Your task to perform on an android device: delete browsing data in the chrome app Image 0: 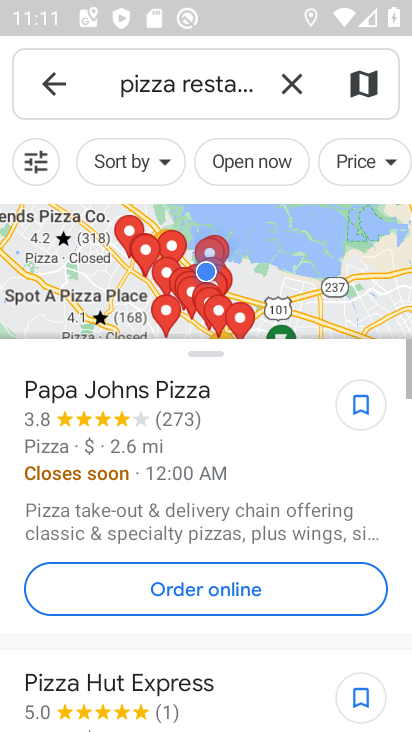
Step 0: press home button
Your task to perform on an android device: delete browsing data in the chrome app Image 1: 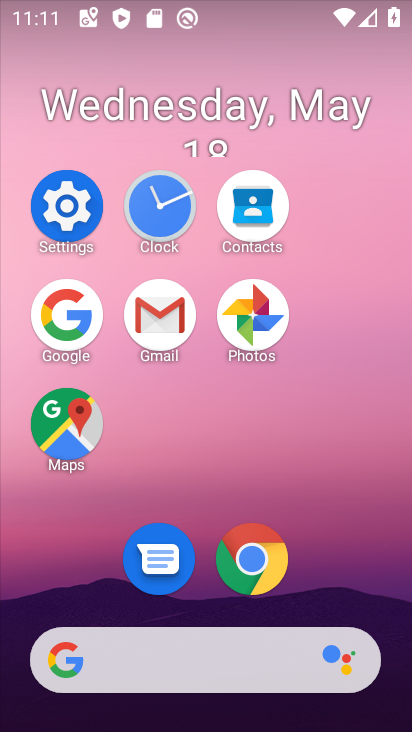
Step 1: click (272, 571)
Your task to perform on an android device: delete browsing data in the chrome app Image 2: 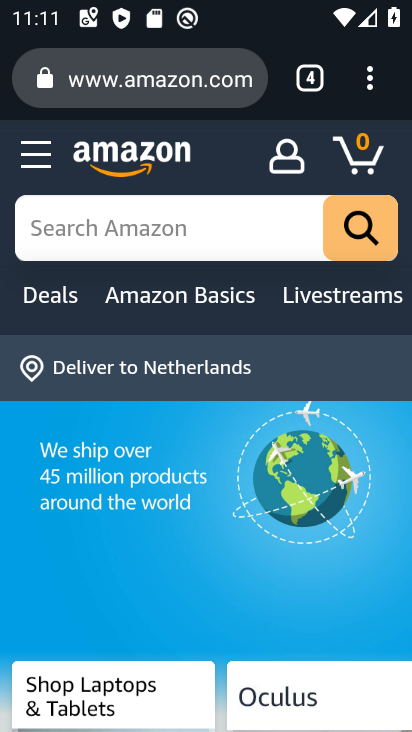
Step 2: click (372, 90)
Your task to perform on an android device: delete browsing data in the chrome app Image 3: 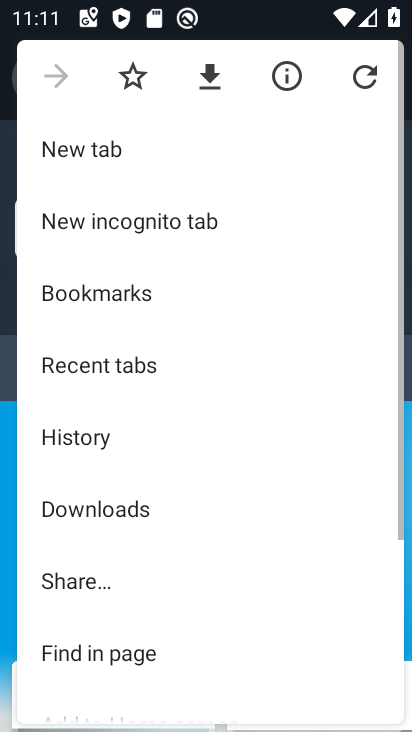
Step 3: drag from (242, 631) to (316, 191)
Your task to perform on an android device: delete browsing data in the chrome app Image 4: 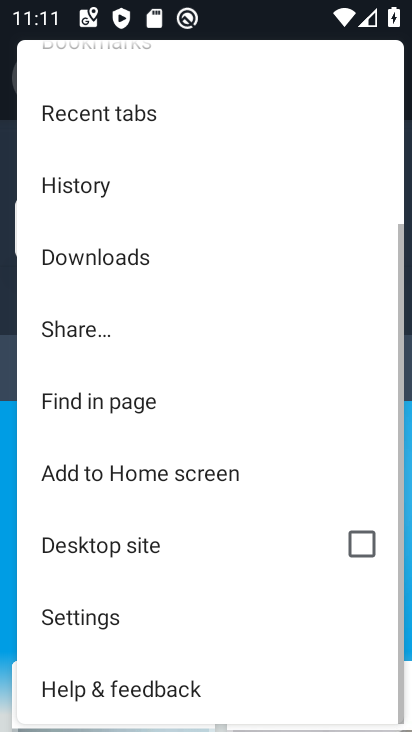
Step 4: click (177, 601)
Your task to perform on an android device: delete browsing data in the chrome app Image 5: 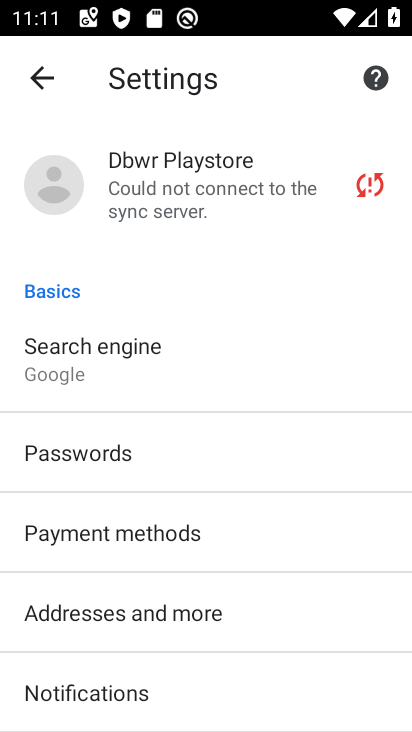
Step 5: drag from (301, 625) to (324, 283)
Your task to perform on an android device: delete browsing data in the chrome app Image 6: 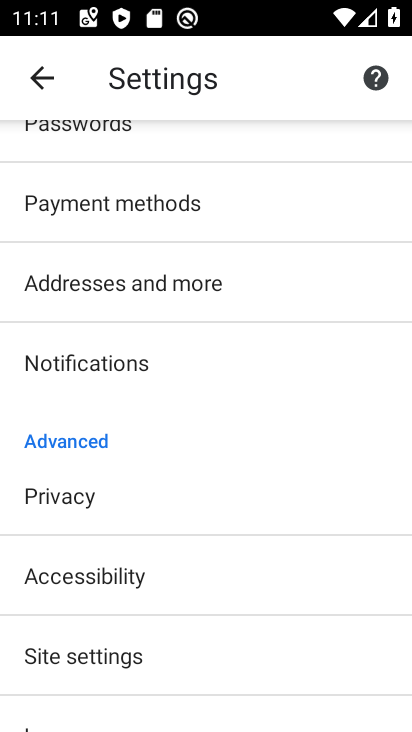
Step 6: drag from (243, 539) to (302, 265)
Your task to perform on an android device: delete browsing data in the chrome app Image 7: 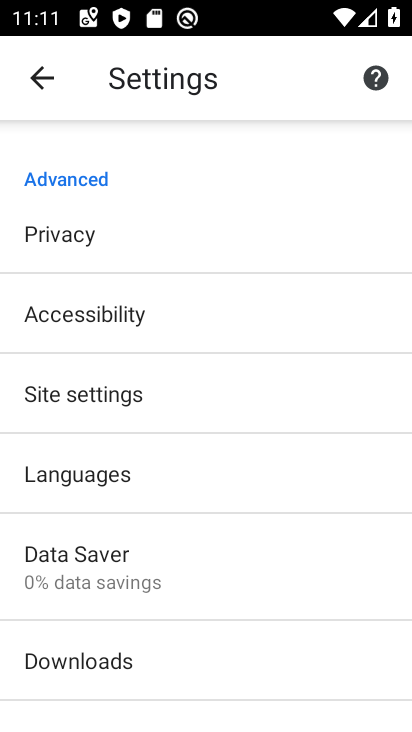
Step 7: click (163, 241)
Your task to perform on an android device: delete browsing data in the chrome app Image 8: 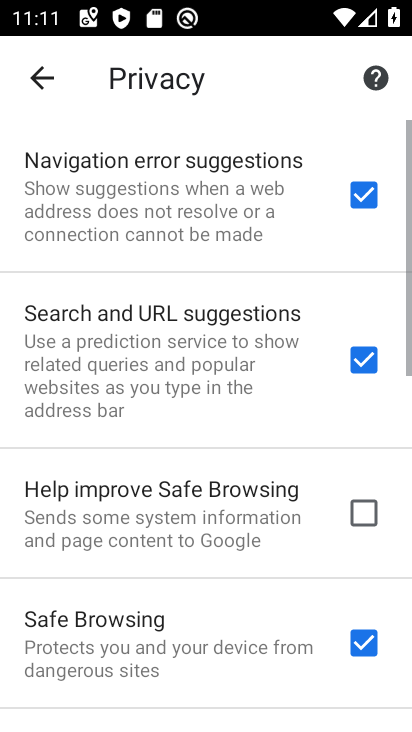
Step 8: drag from (239, 491) to (275, 156)
Your task to perform on an android device: delete browsing data in the chrome app Image 9: 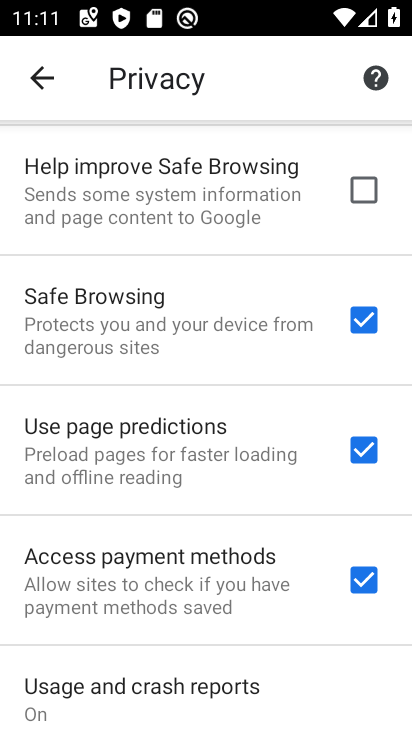
Step 9: drag from (230, 637) to (291, 139)
Your task to perform on an android device: delete browsing data in the chrome app Image 10: 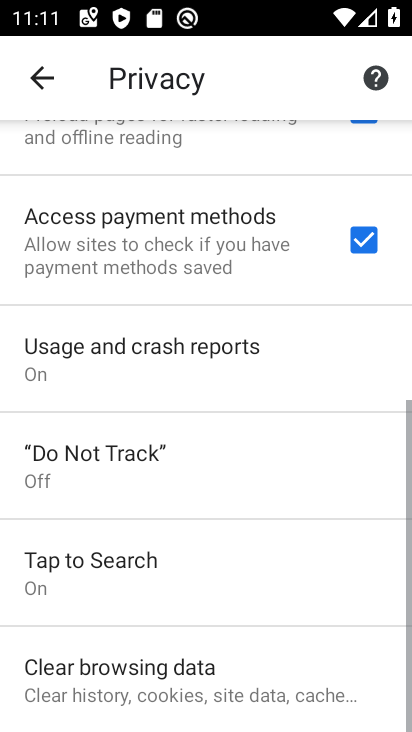
Step 10: click (232, 663)
Your task to perform on an android device: delete browsing data in the chrome app Image 11: 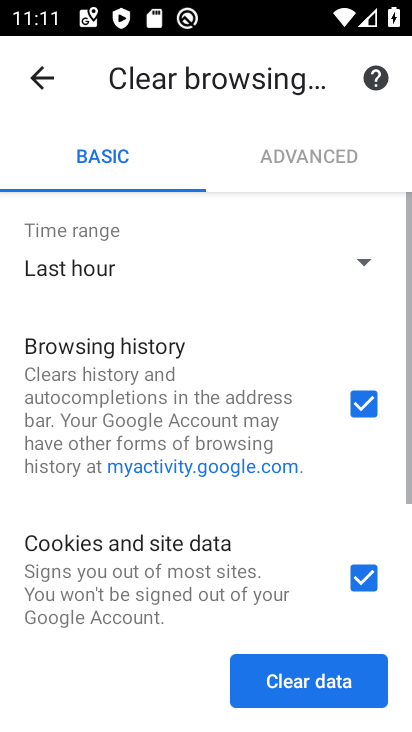
Step 11: drag from (218, 626) to (272, 220)
Your task to perform on an android device: delete browsing data in the chrome app Image 12: 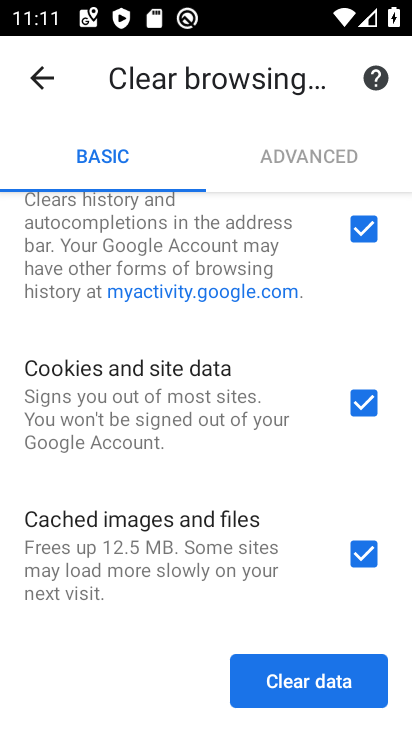
Step 12: click (321, 679)
Your task to perform on an android device: delete browsing data in the chrome app Image 13: 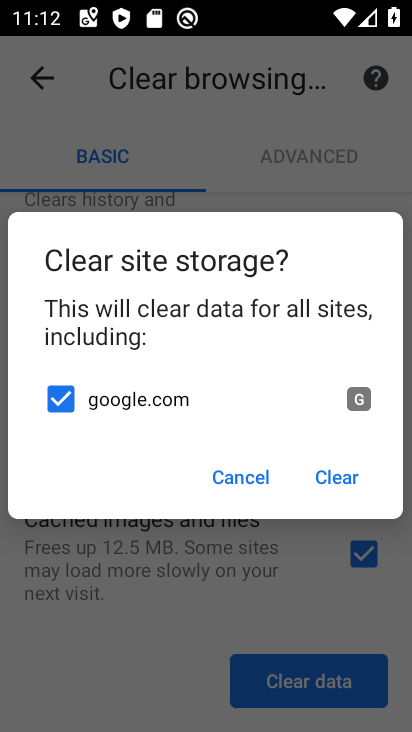
Step 13: click (357, 475)
Your task to perform on an android device: delete browsing data in the chrome app Image 14: 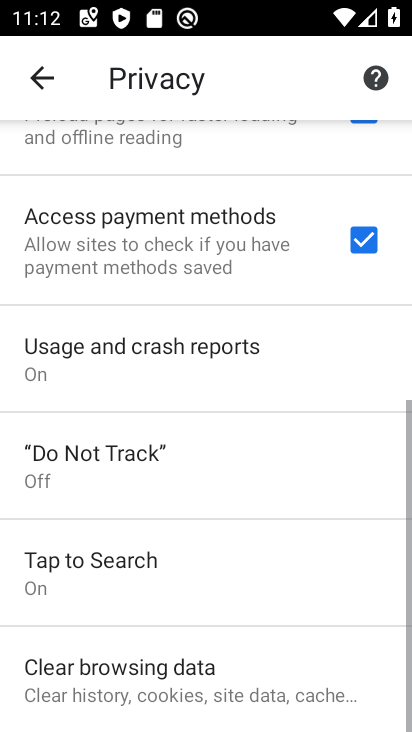
Step 14: task complete